Your task to perform on an android device: turn pop-ups on in chrome Image 0: 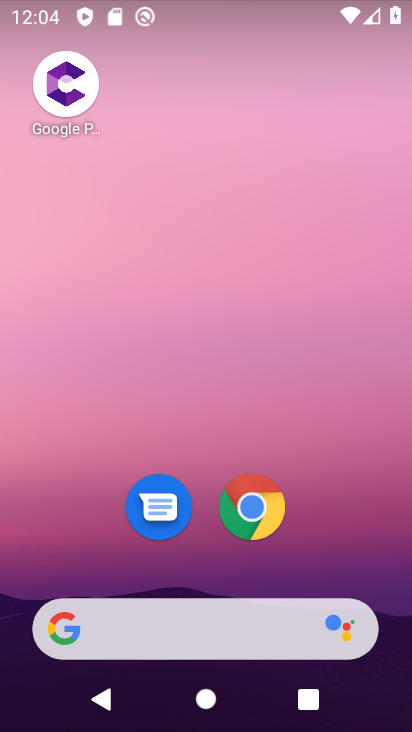
Step 0: click (244, 513)
Your task to perform on an android device: turn pop-ups on in chrome Image 1: 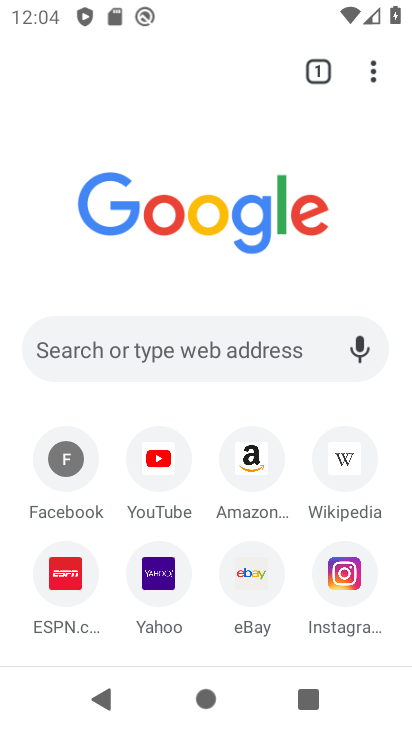
Step 1: click (383, 69)
Your task to perform on an android device: turn pop-ups on in chrome Image 2: 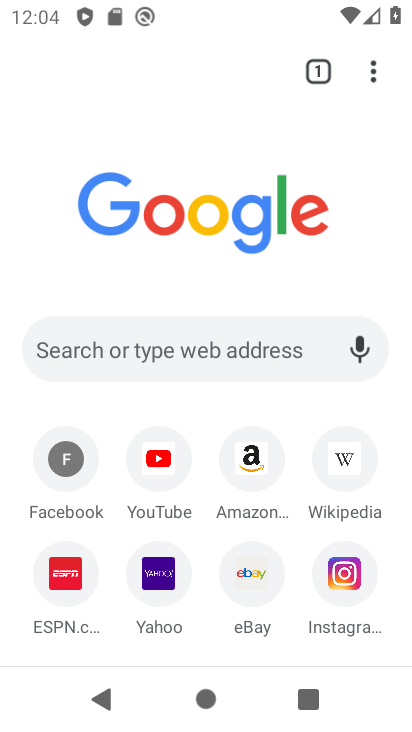
Step 2: click (382, 67)
Your task to perform on an android device: turn pop-ups on in chrome Image 3: 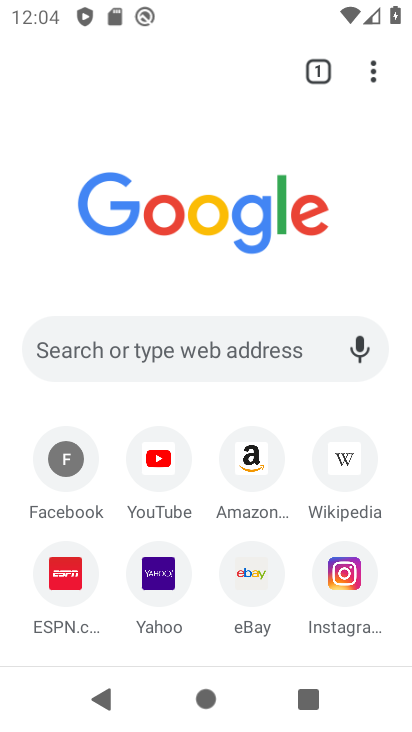
Step 3: click (382, 67)
Your task to perform on an android device: turn pop-ups on in chrome Image 4: 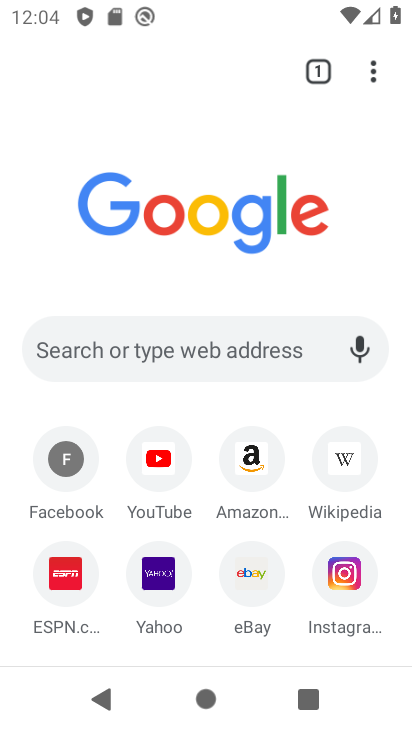
Step 4: click (369, 65)
Your task to perform on an android device: turn pop-ups on in chrome Image 5: 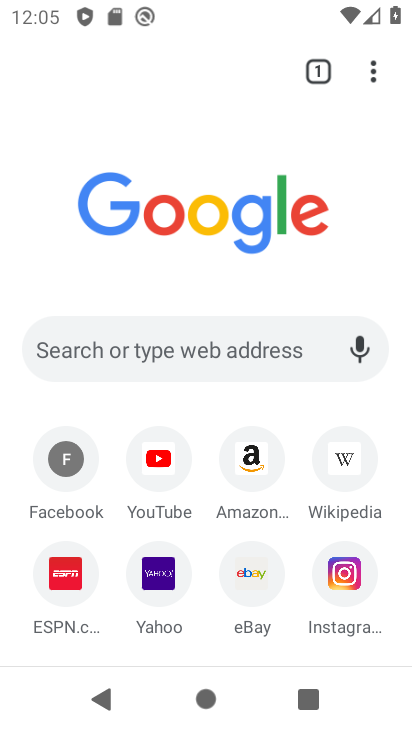
Step 5: click (373, 68)
Your task to perform on an android device: turn pop-ups on in chrome Image 6: 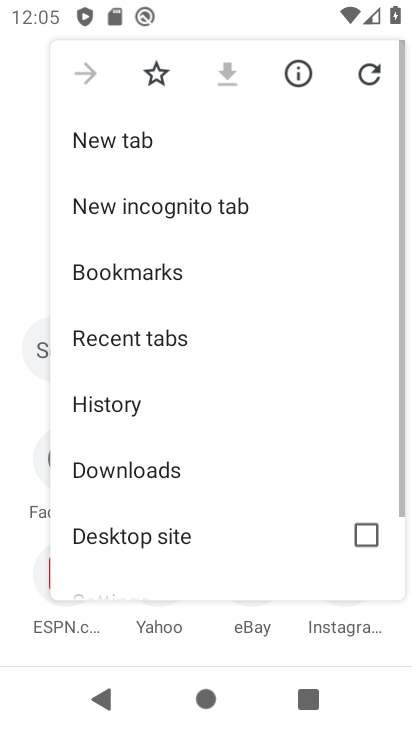
Step 6: drag from (207, 532) to (225, 221)
Your task to perform on an android device: turn pop-ups on in chrome Image 7: 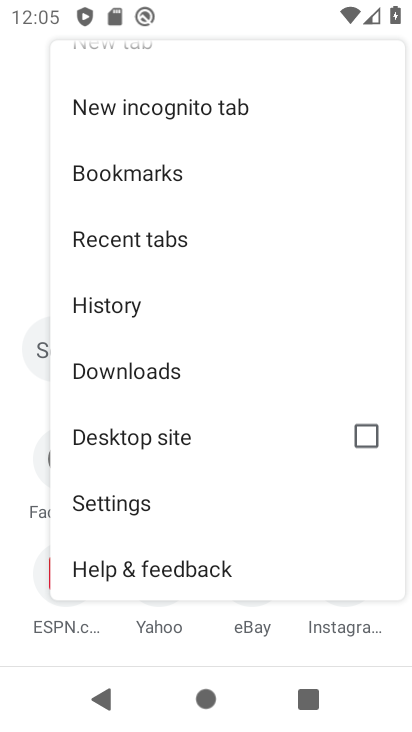
Step 7: click (159, 495)
Your task to perform on an android device: turn pop-ups on in chrome Image 8: 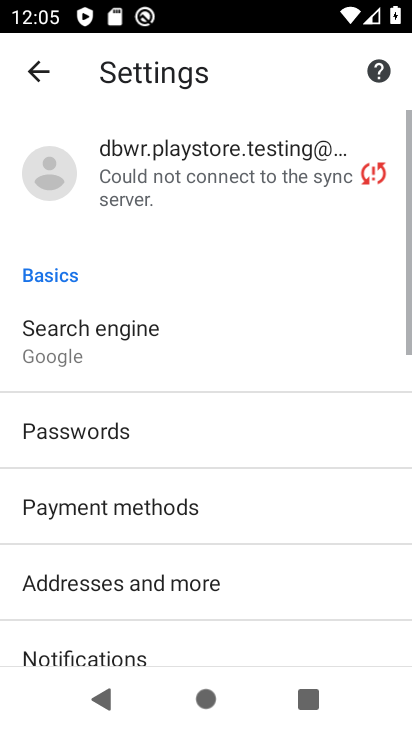
Step 8: drag from (238, 603) to (253, 239)
Your task to perform on an android device: turn pop-ups on in chrome Image 9: 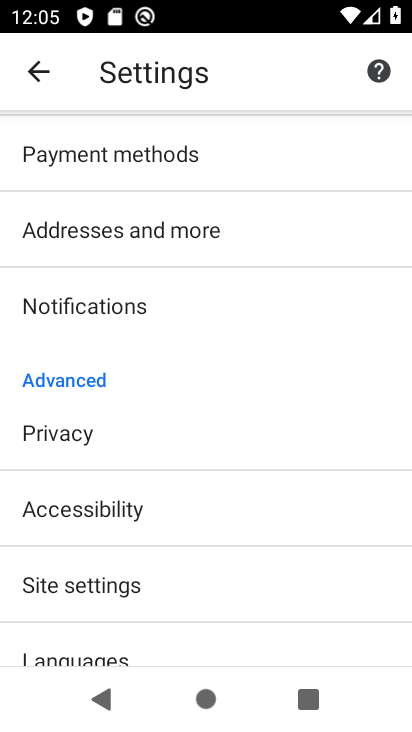
Step 9: drag from (177, 588) to (203, 268)
Your task to perform on an android device: turn pop-ups on in chrome Image 10: 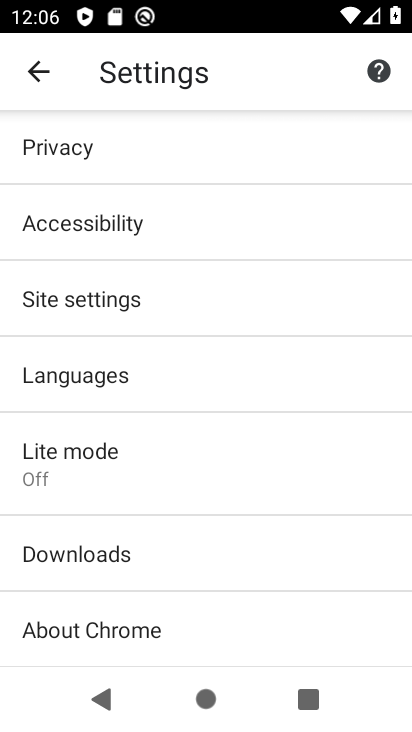
Step 10: click (130, 290)
Your task to perform on an android device: turn pop-ups on in chrome Image 11: 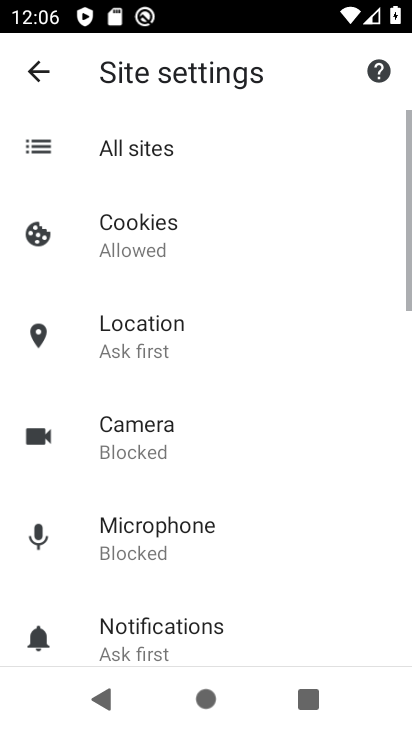
Step 11: drag from (237, 598) to (249, 215)
Your task to perform on an android device: turn pop-ups on in chrome Image 12: 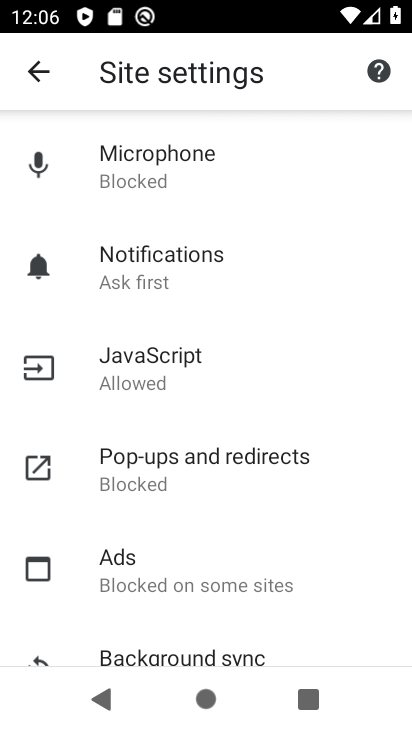
Step 12: click (255, 452)
Your task to perform on an android device: turn pop-ups on in chrome Image 13: 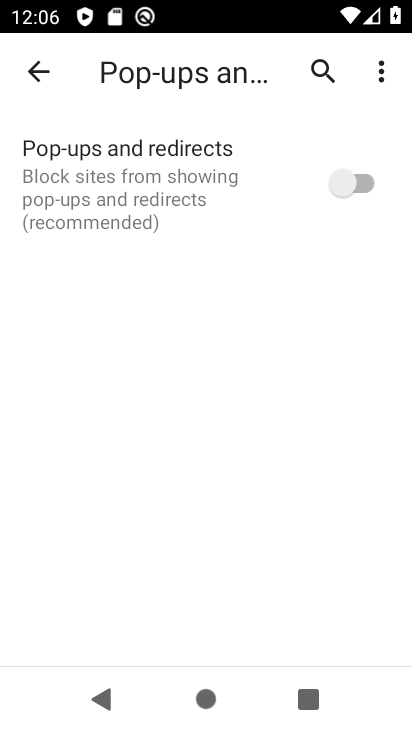
Step 13: click (351, 178)
Your task to perform on an android device: turn pop-ups on in chrome Image 14: 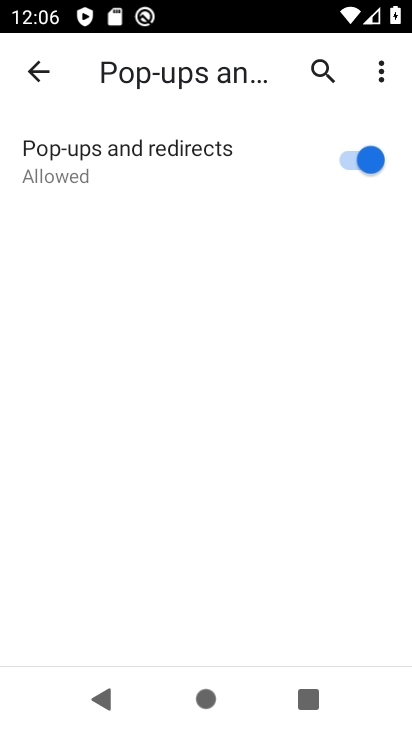
Step 14: task complete